Your task to perform on an android device: toggle airplane mode Image 0: 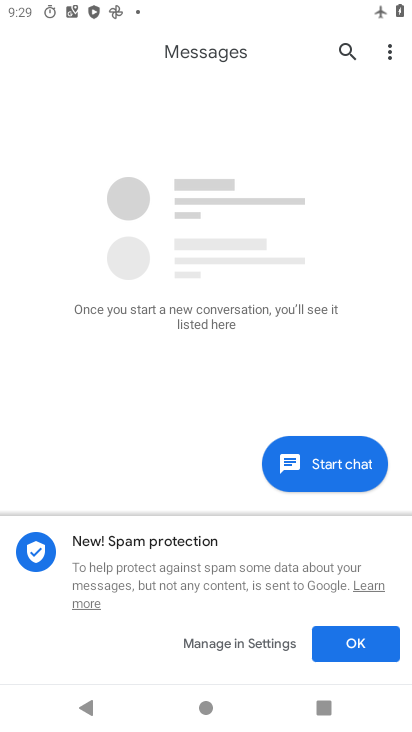
Step 0: click (232, 653)
Your task to perform on an android device: toggle airplane mode Image 1: 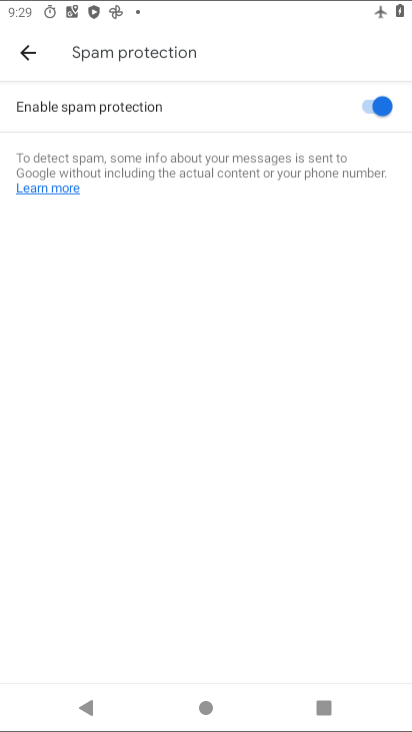
Step 1: press home button
Your task to perform on an android device: toggle airplane mode Image 2: 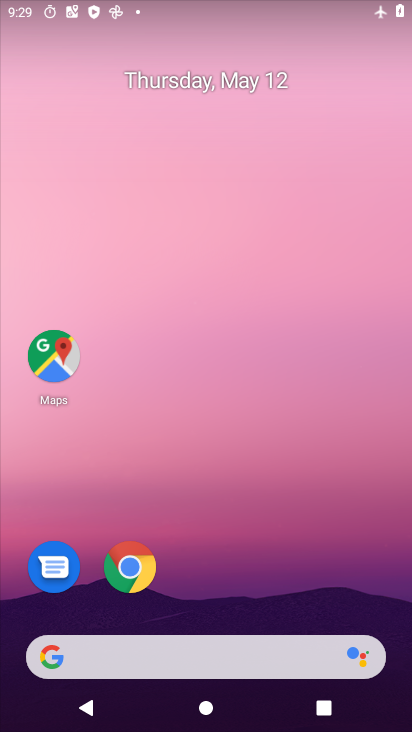
Step 2: drag from (243, 617) to (238, 192)
Your task to perform on an android device: toggle airplane mode Image 3: 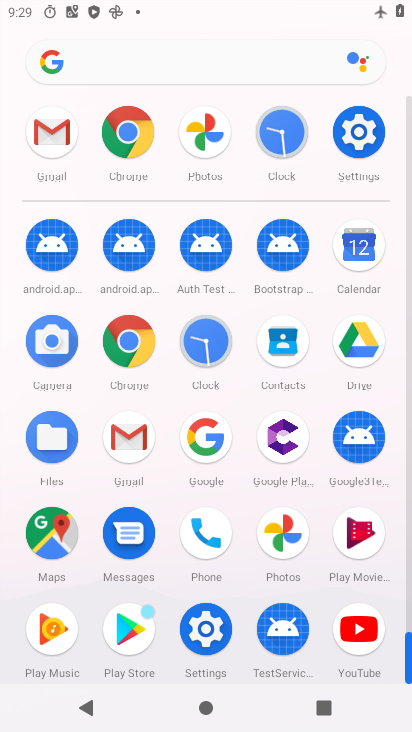
Step 3: click (370, 150)
Your task to perform on an android device: toggle airplane mode Image 4: 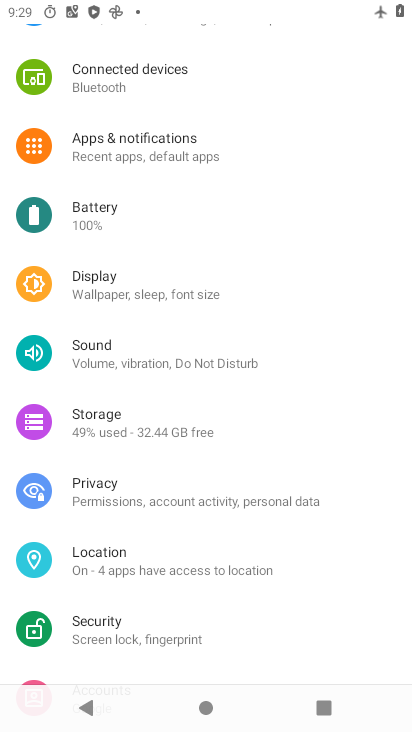
Step 4: drag from (237, 202) to (223, 622)
Your task to perform on an android device: toggle airplane mode Image 5: 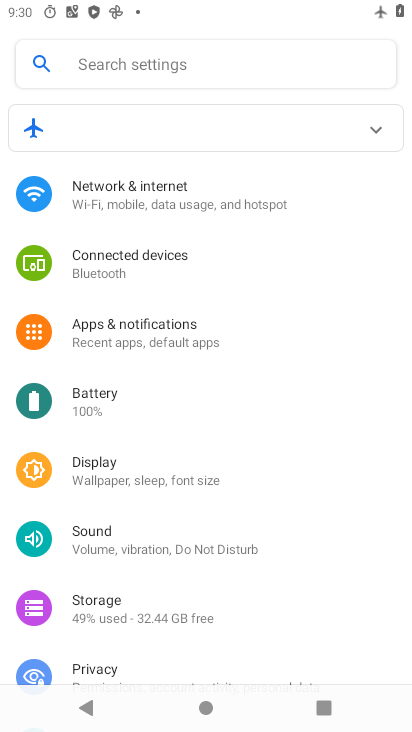
Step 5: click (232, 203)
Your task to perform on an android device: toggle airplane mode Image 6: 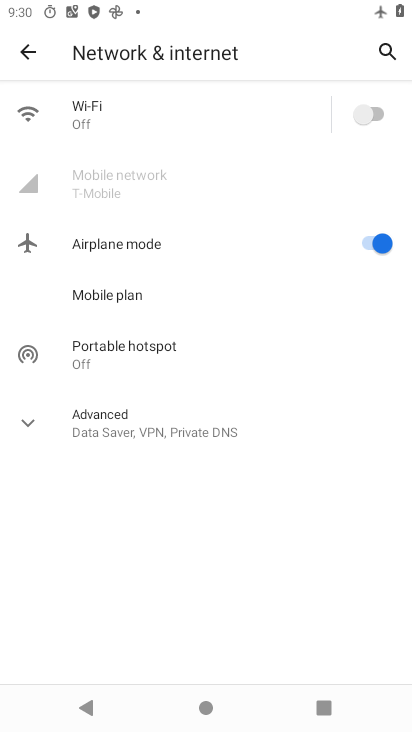
Step 6: click (367, 248)
Your task to perform on an android device: toggle airplane mode Image 7: 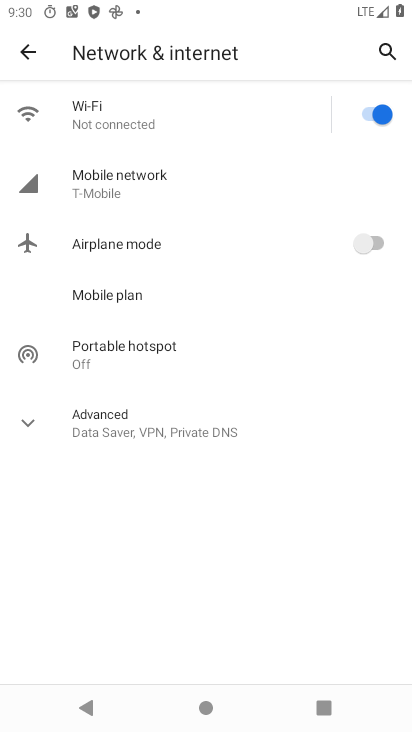
Step 7: task complete